Your task to perform on an android device: check battery use Image 0: 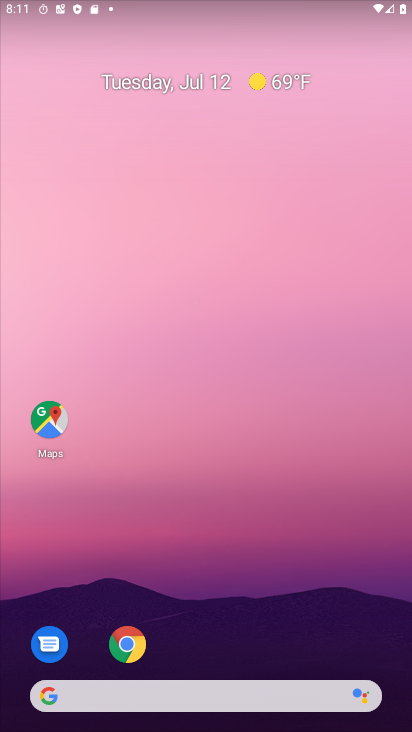
Step 0: press home button
Your task to perform on an android device: check battery use Image 1: 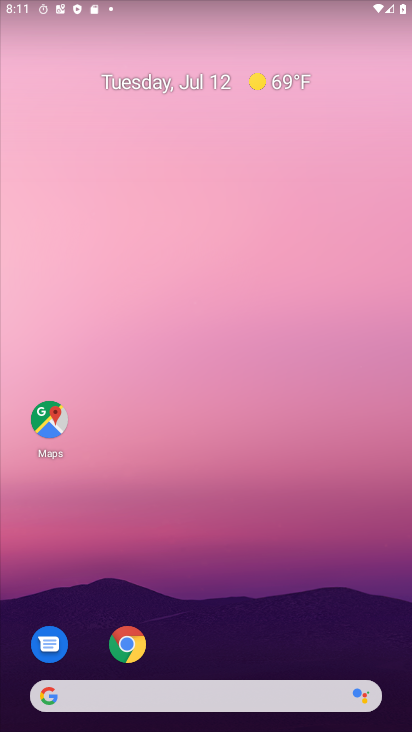
Step 1: drag from (213, 655) to (234, 18)
Your task to perform on an android device: check battery use Image 2: 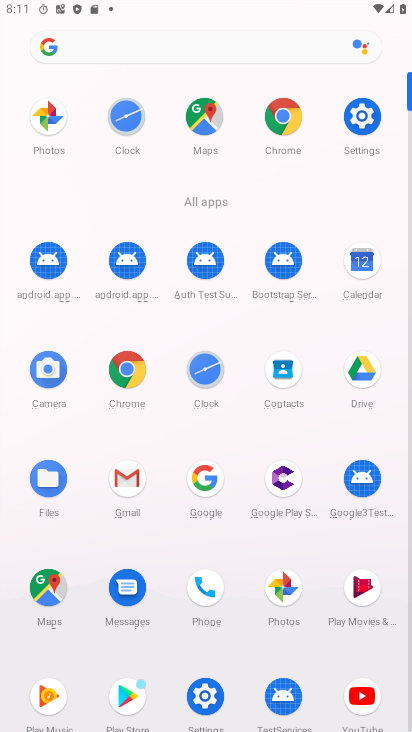
Step 2: click (369, 110)
Your task to perform on an android device: check battery use Image 3: 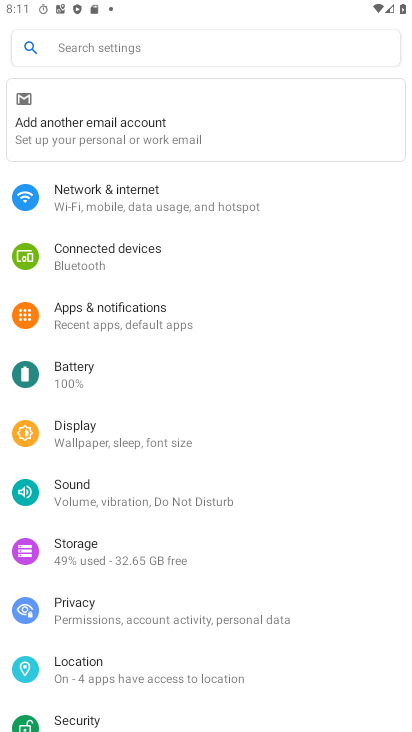
Step 3: click (104, 372)
Your task to perform on an android device: check battery use Image 4: 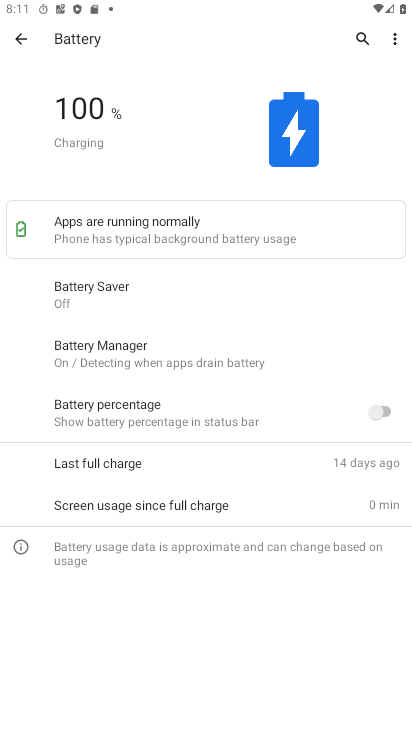
Step 4: click (392, 41)
Your task to perform on an android device: check battery use Image 5: 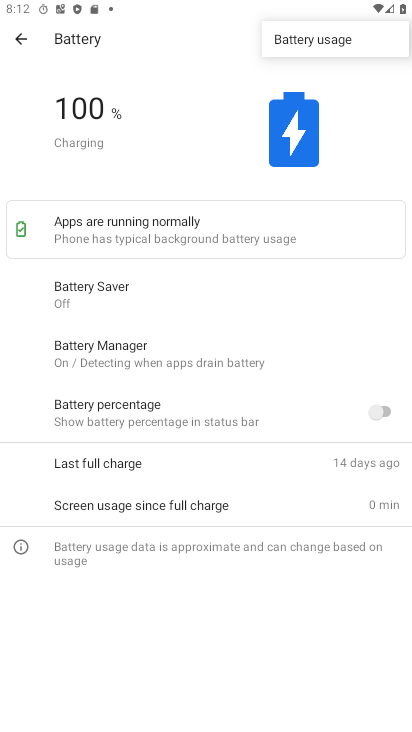
Step 5: click (314, 38)
Your task to perform on an android device: check battery use Image 6: 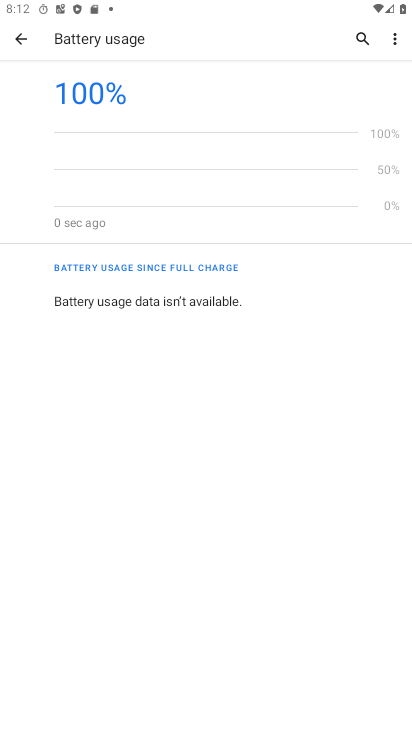
Step 6: task complete